Your task to perform on an android device: set default search engine in the chrome app Image 0: 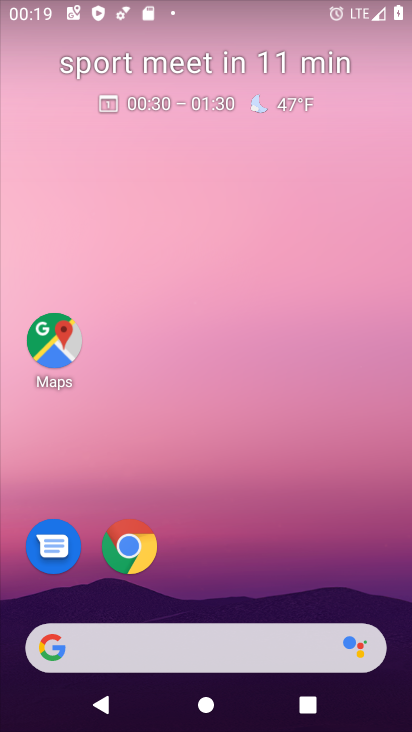
Step 0: click (137, 545)
Your task to perform on an android device: set default search engine in the chrome app Image 1: 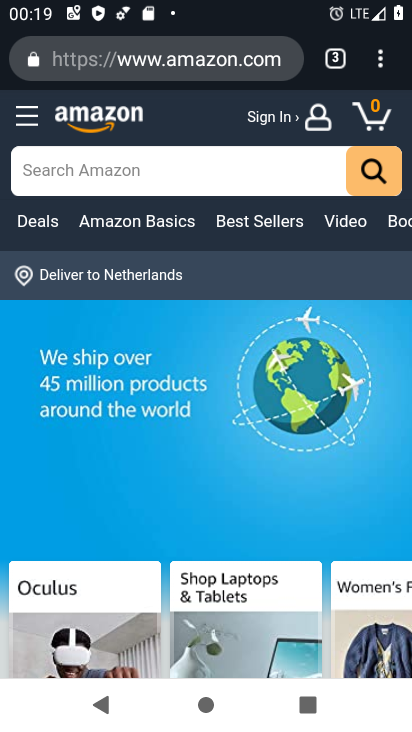
Step 1: drag from (382, 63) to (190, 576)
Your task to perform on an android device: set default search engine in the chrome app Image 2: 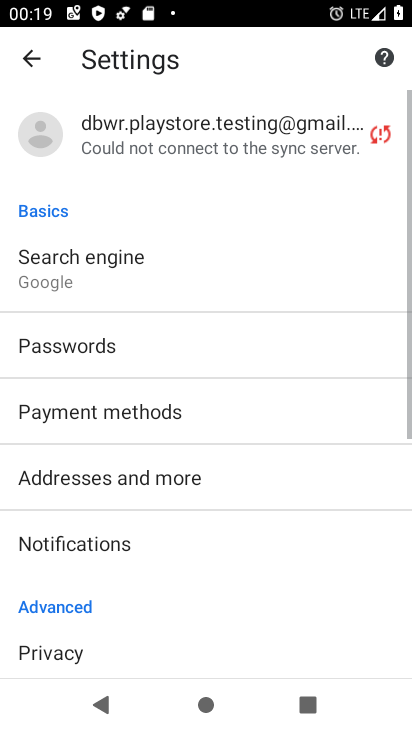
Step 2: click (57, 282)
Your task to perform on an android device: set default search engine in the chrome app Image 3: 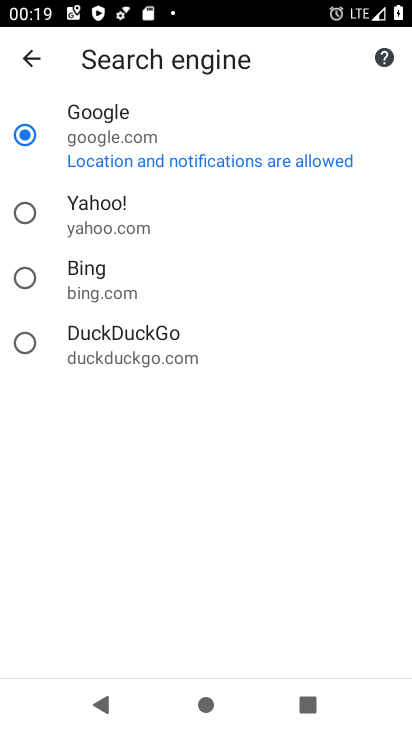
Step 3: click (18, 213)
Your task to perform on an android device: set default search engine in the chrome app Image 4: 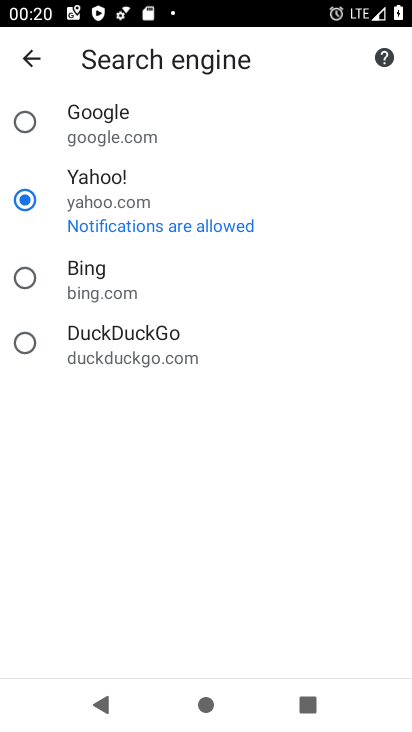
Step 4: task complete